Your task to perform on an android device: change alarm snooze length Image 0: 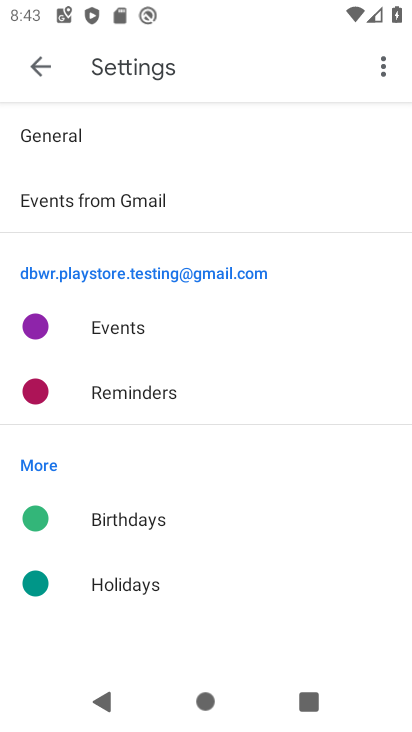
Step 0: press home button
Your task to perform on an android device: change alarm snooze length Image 1: 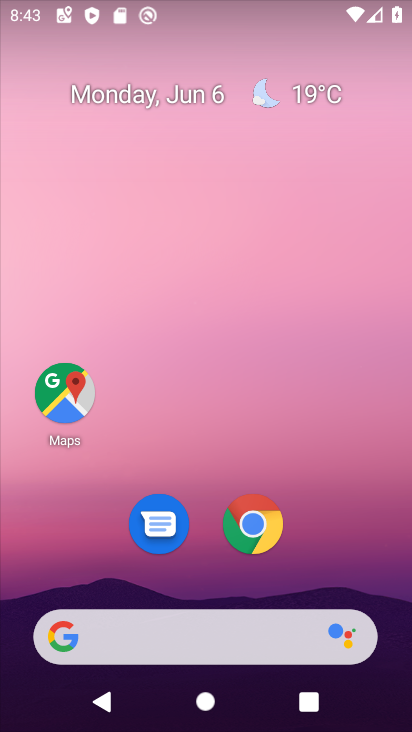
Step 1: drag from (311, 551) to (293, 26)
Your task to perform on an android device: change alarm snooze length Image 2: 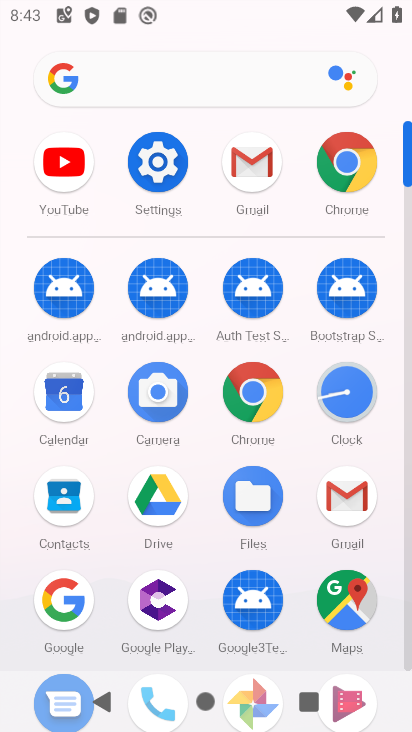
Step 2: click (342, 384)
Your task to perform on an android device: change alarm snooze length Image 3: 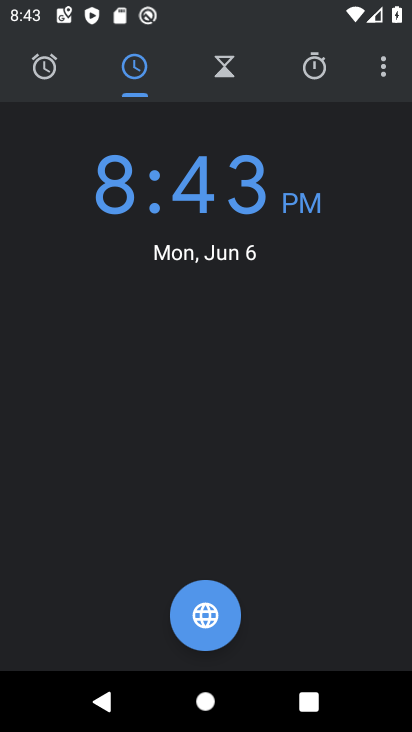
Step 3: click (382, 62)
Your task to perform on an android device: change alarm snooze length Image 4: 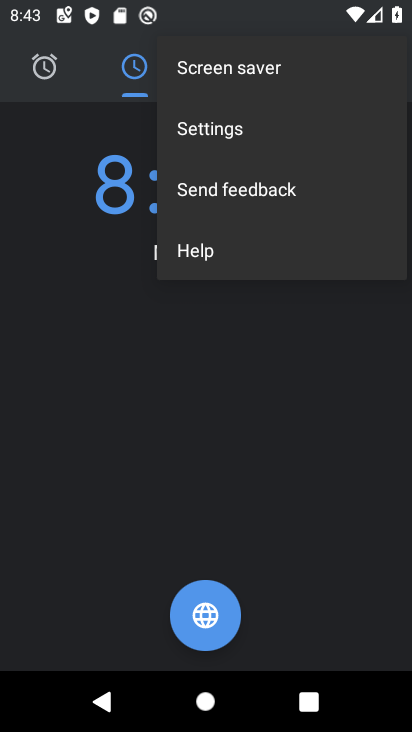
Step 4: click (291, 134)
Your task to perform on an android device: change alarm snooze length Image 5: 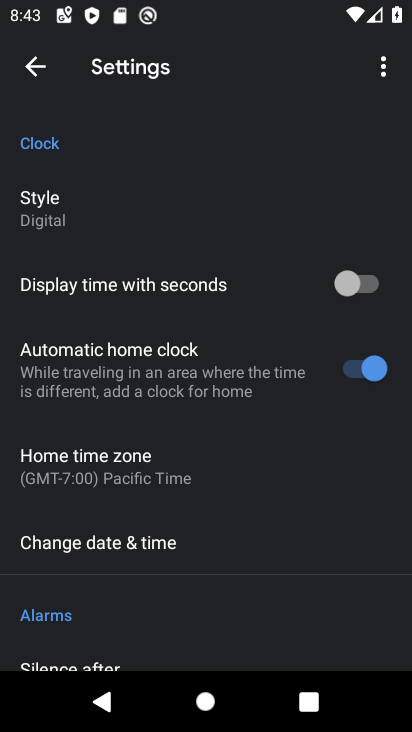
Step 5: drag from (222, 492) to (201, 77)
Your task to perform on an android device: change alarm snooze length Image 6: 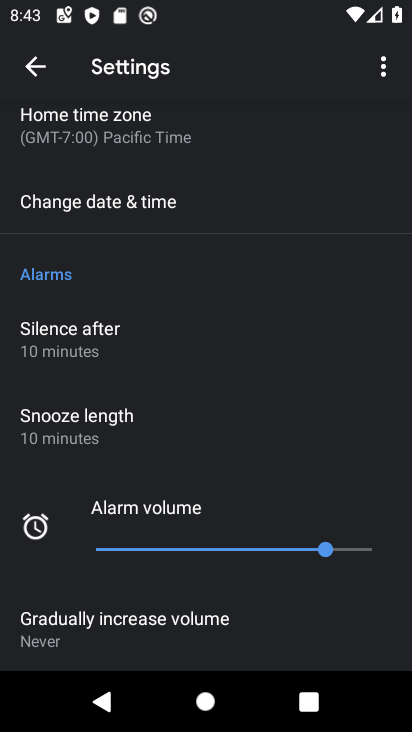
Step 6: click (137, 428)
Your task to perform on an android device: change alarm snooze length Image 7: 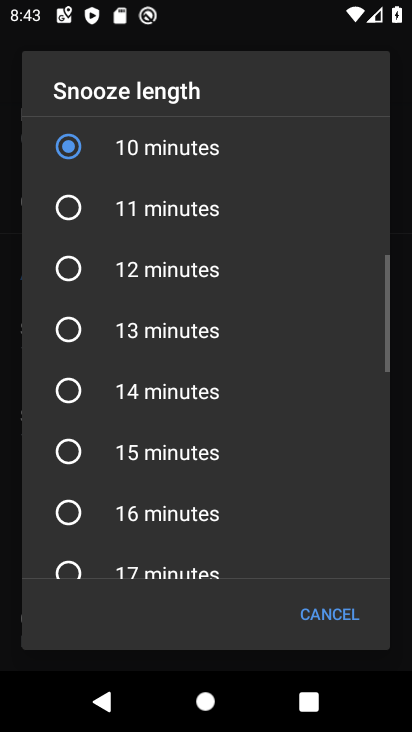
Step 7: click (138, 265)
Your task to perform on an android device: change alarm snooze length Image 8: 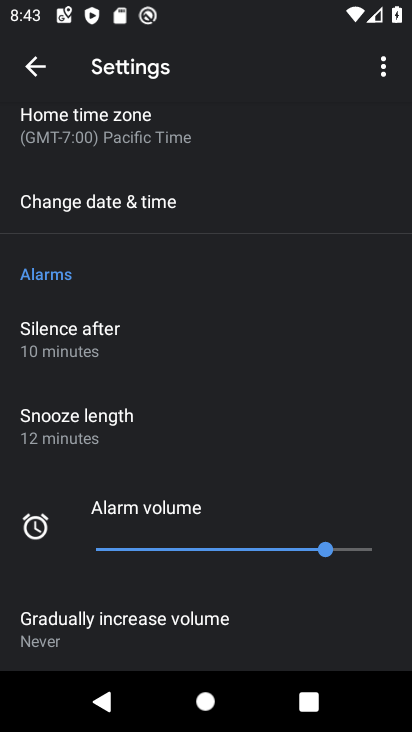
Step 8: task complete